Your task to perform on an android device: Open Google Maps Image 0: 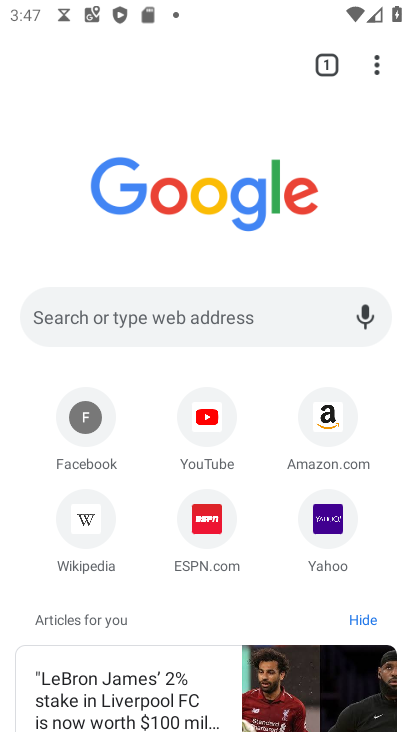
Step 0: press home button
Your task to perform on an android device: Open Google Maps Image 1: 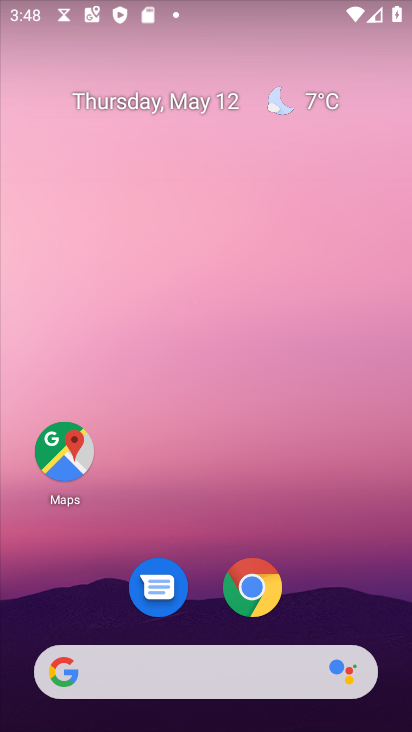
Step 1: click (67, 461)
Your task to perform on an android device: Open Google Maps Image 2: 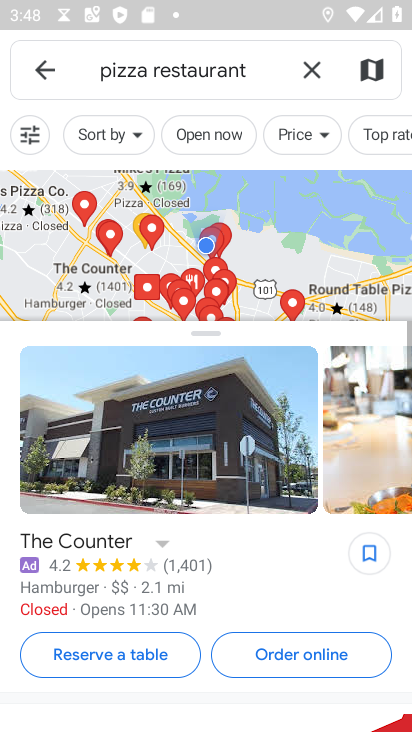
Step 2: click (302, 70)
Your task to perform on an android device: Open Google Maps Image 3: 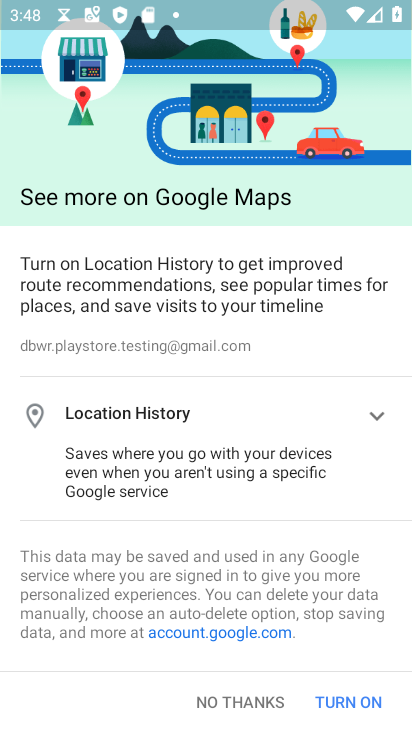
Step 3: press back button
Your task to perform on an android device: Open Google Maps Image 4: 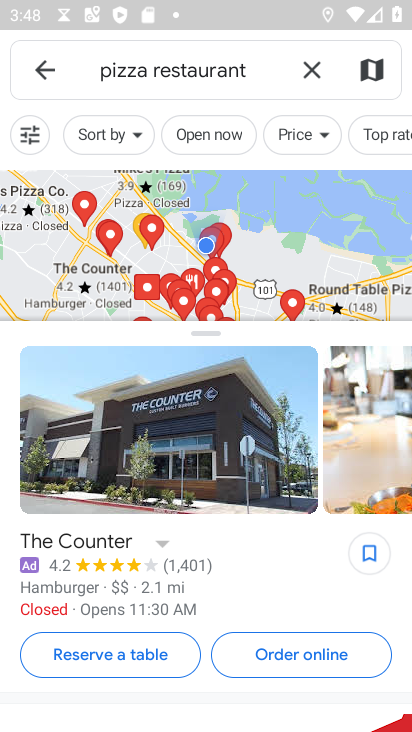
Step 4: click (304, 76)
Your task to perform on an android device: Open Google Maps Image 5: 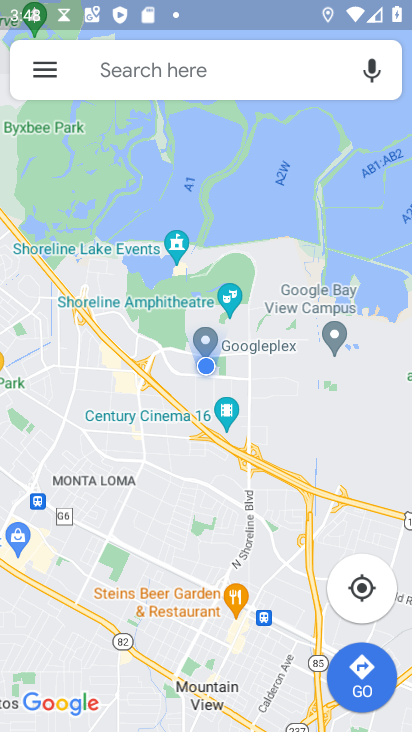
Step 5: task complete